Your task to perform on an android device: turn on notifications settings in the gmail app Image 0: 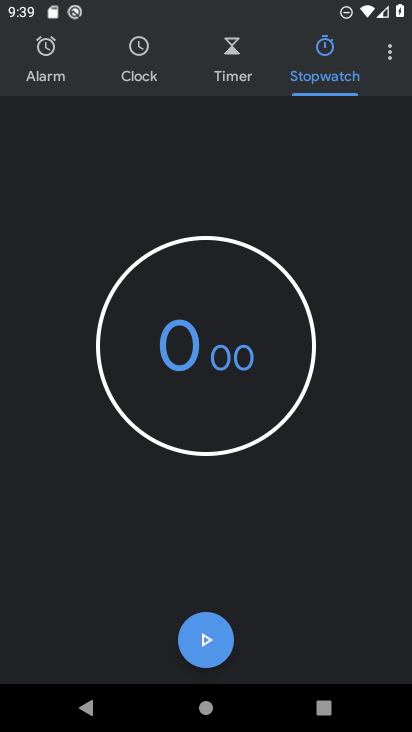
Step 0: press home button
Your task to perform on an android device: turn on notifications settings in the gmail app Image 1: 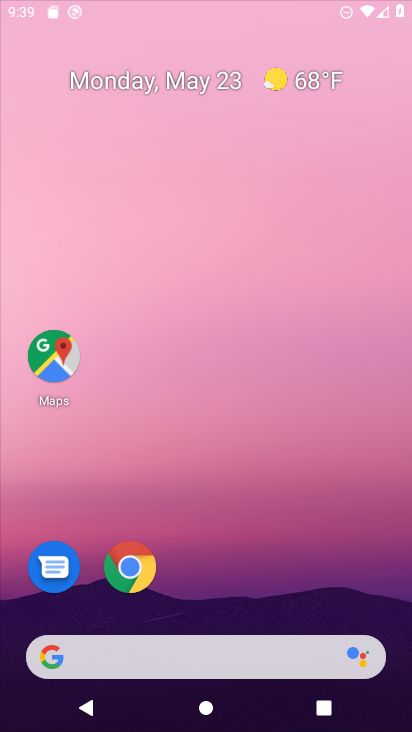
Step 1: drag from (157, 613) to (211, 90)
Your task to perform on an android device: turn on notifications settings in the gmail app Image 2: 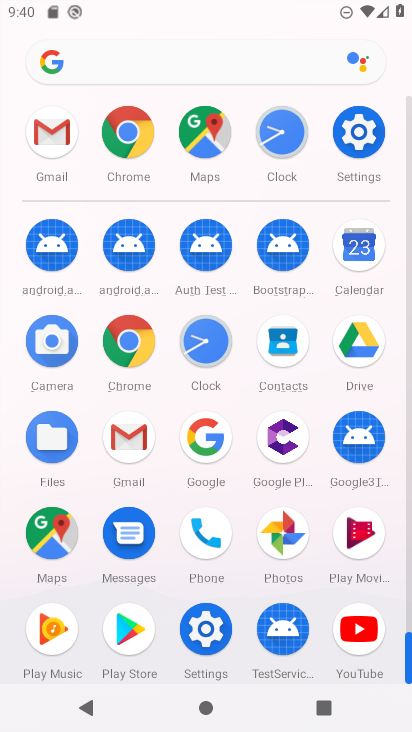
Step 2: click (125, 447)
Your task to perform on an android device: turn on notifications settings in the gmail app Image 3: 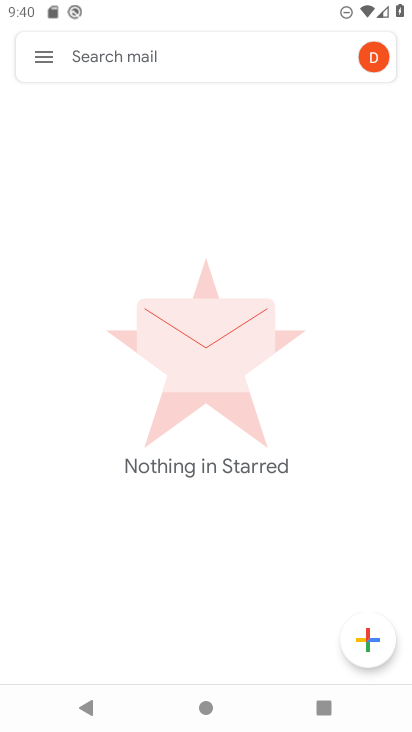
Step 3: click (45, 63)
Your task to perform on an android device: turn on notifications settings in the gmail app Image 4: 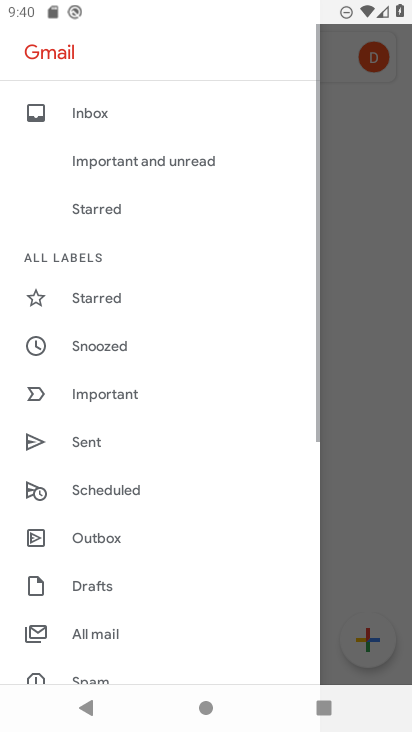
Step 4: drag from (134, 539) to (181, 98)
Your task to perform on an android device: turn on notifications settings in the gmail app Image 5: 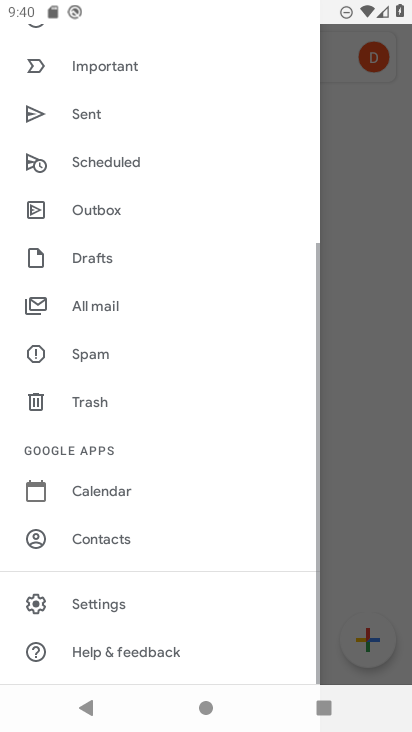
Step 5: click (92, 587)
Your task to perform on an android device: turn on notifications settings in the gmail app Image 6: 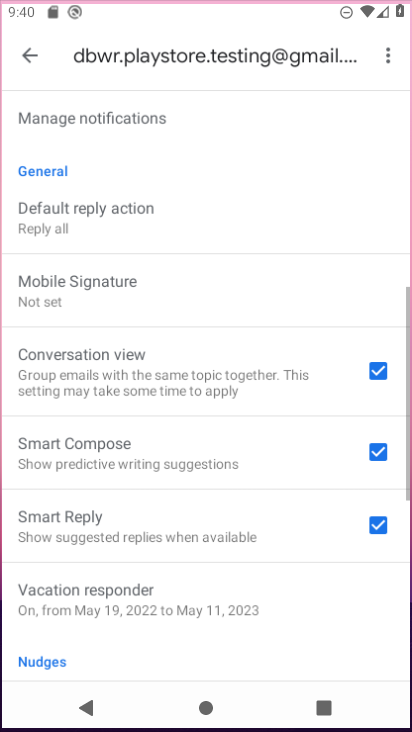
Step 6: drag from (92, 578) to (253, 39)
Your task to perform on an android device: turn on notifications settings in the gmail app Image 7: 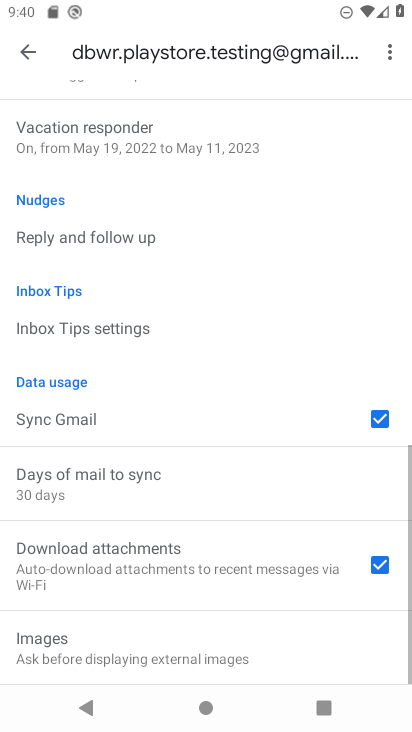
Step 7: drag from (126, 244) to (128, 731)
Your task to perform on an android device: turn on notifications settings in the gmail app Image 8: 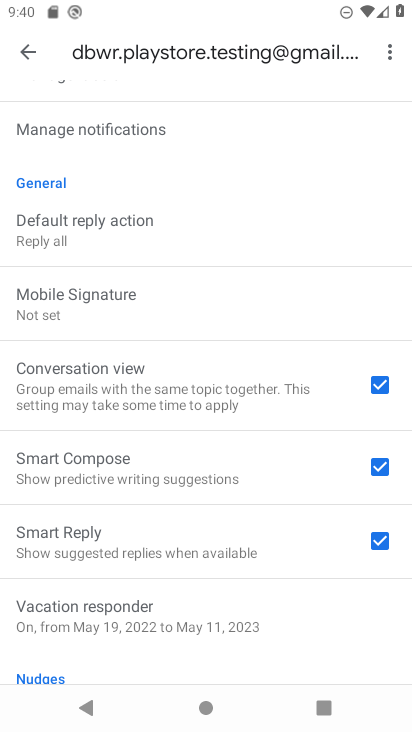
Step 8: click (145, 136)
Your task to perform on an android device: turn on notifications settings in the gmail app Image 9: 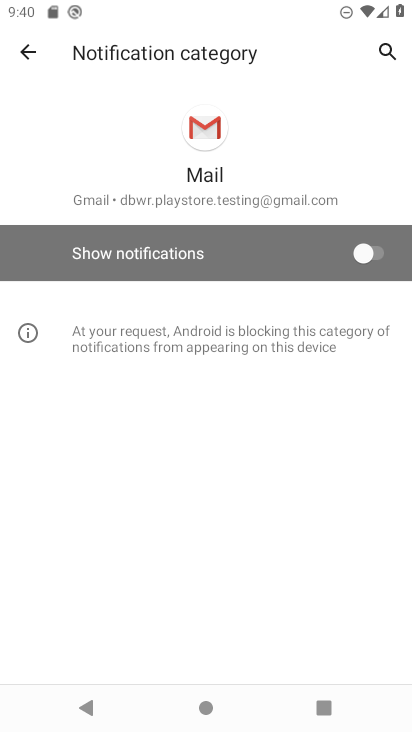
Step 9: click (353, 256)
Your task to perform on an android device: turn on notifications settings in the gmail app Image 10: 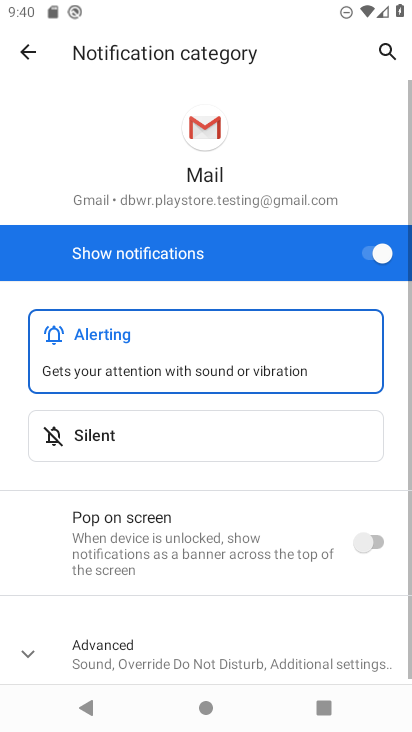
Step 10: task complete